Your task to perform on an android device: Open Android settings Image 0: 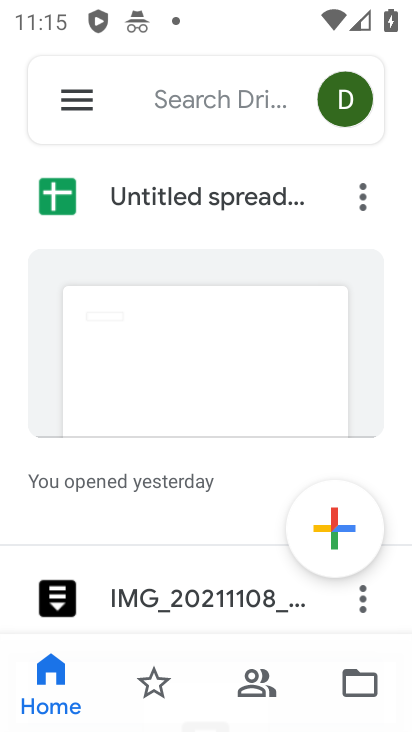
Step 0: press home button
Your task to perform on an android device: Open Android settings Image 1: 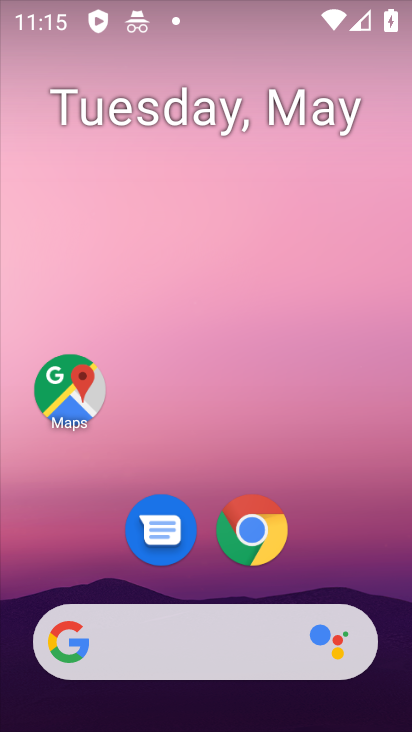
Step 1: drag from (334, 487) to (330, 84)
Your task to perform on an android device: Open Android settings Image 2: 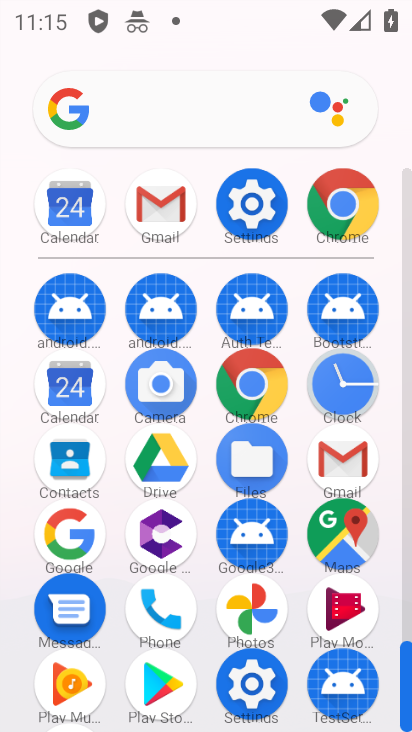
Step 2: click (267, 189)
Your task to perform on an android device: Open Android settings Image 3: 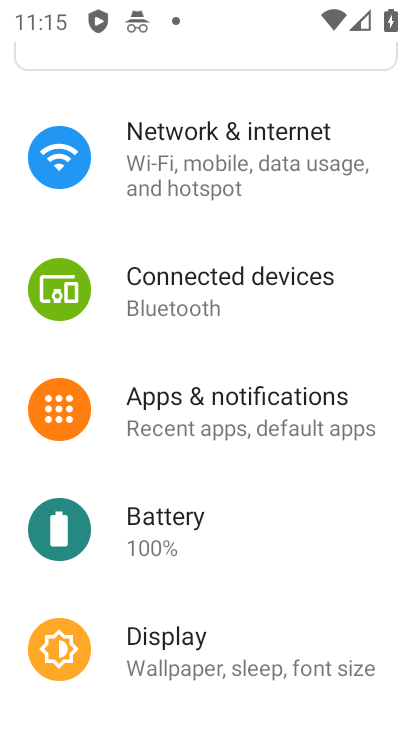
Step 3: task complete